Your task to perform on an android device: Open notification settings Image 0: 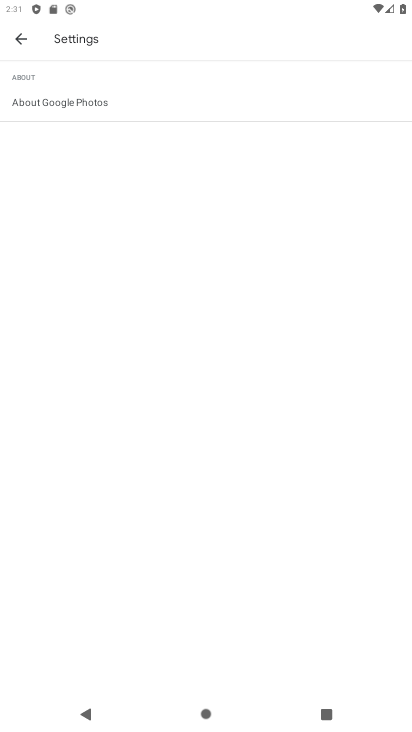
Step 0: press home button
Your task to perform on an android device: Open notification settings Image 1: 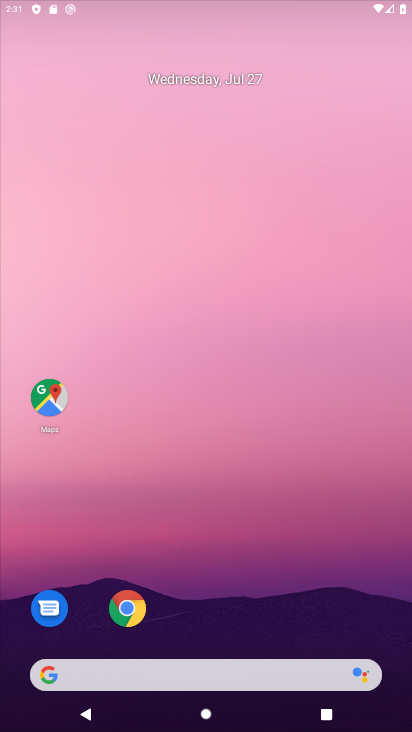
Step 1: drag from (209, 428) to (210, 106)
Your task to perform on an android device: Open notification settings Image 2: 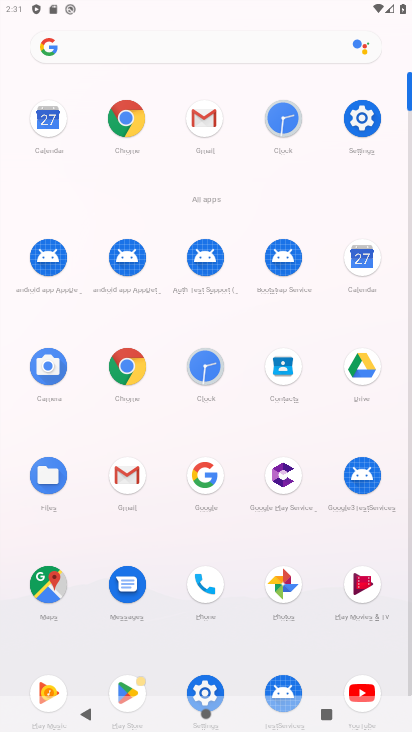
Step 2: click (374, 115)
Your task to perform on an android device: Open notification settings Image 3: 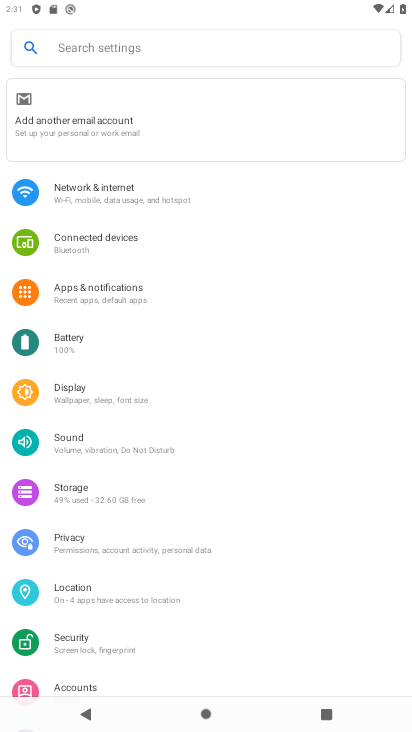
Step 3: click (91, 283)
Your task to perform on an android device: Open notification settings Image 4: 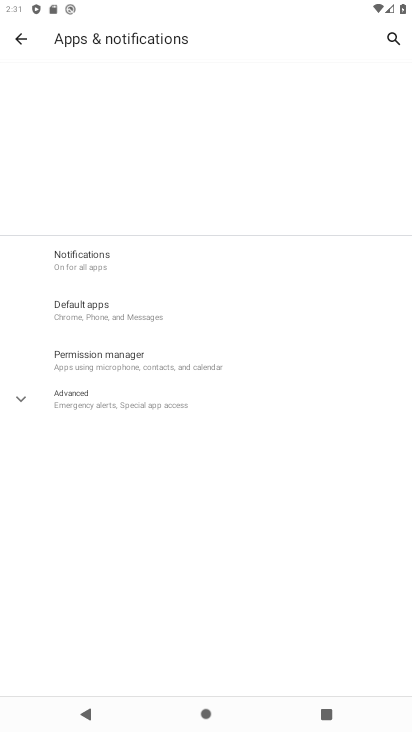
Step 4: task complete